Your task to perform on an android device: show emergency info Image 0: 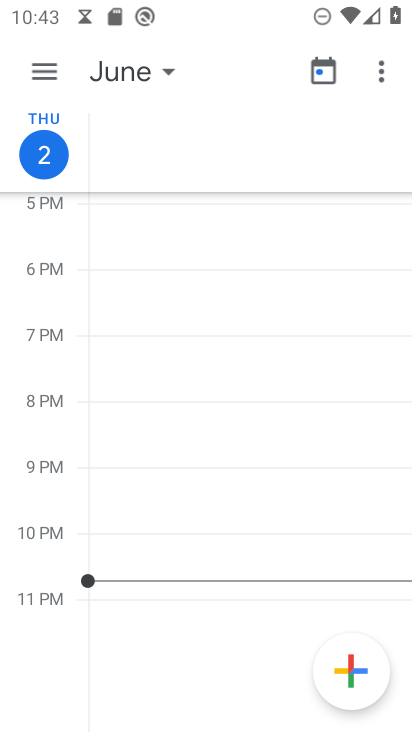
Step 0: press back button
Your task to perform on an android device: show emergency info Image 1: 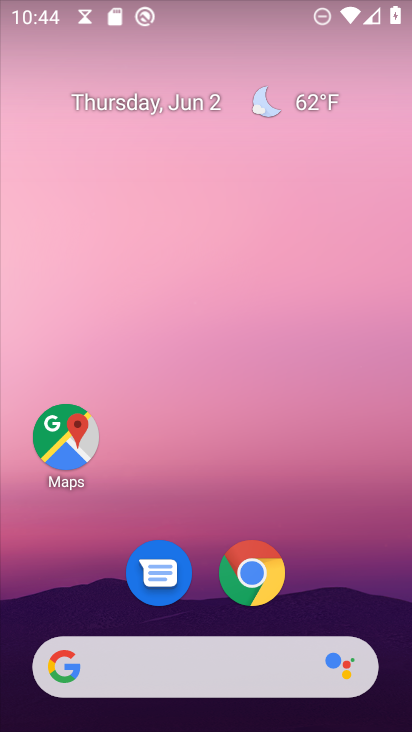
Step 1: drag from (338, 590) to (208, 161)
Your task to perform on an android device: show emergency info Image 2: 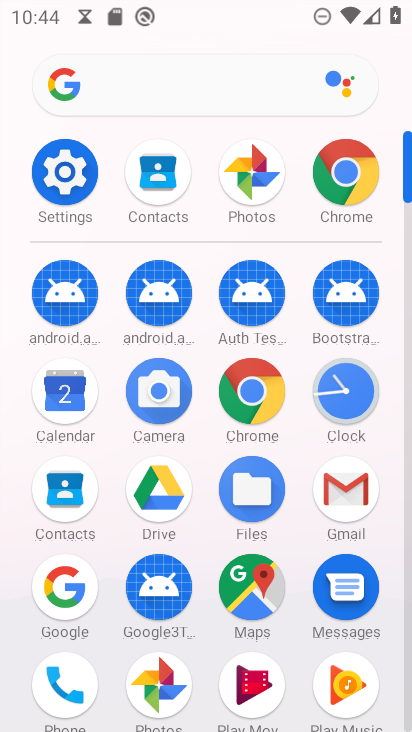
Step 2: click (65, 177)
Your task to perform on an android device: show emergency info Image 3: 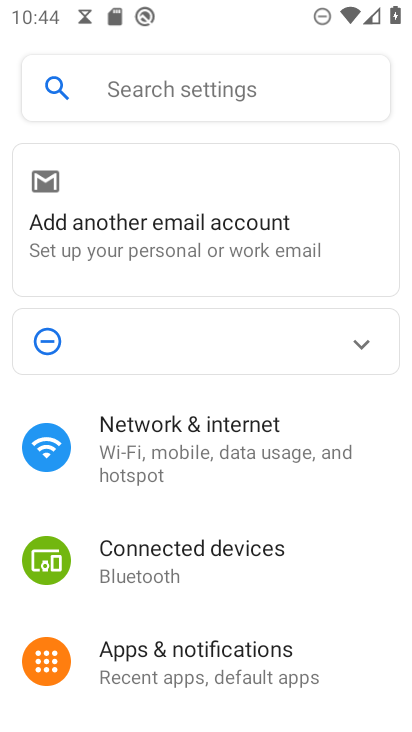
Step 3: drag from (216, 523) to (206, 393)
Your task to perform on an android device: show emergency info Image 4: 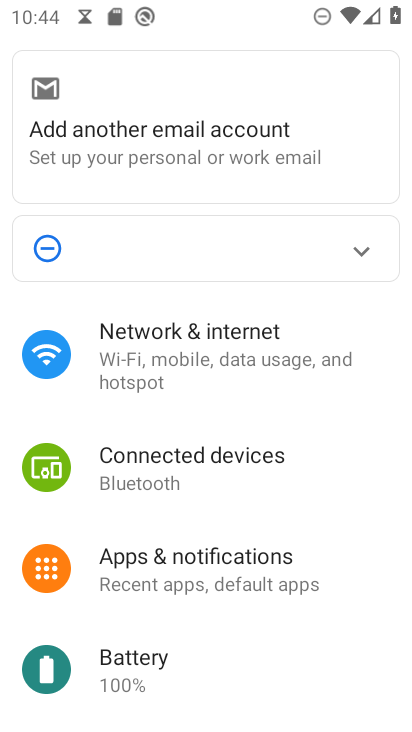
Step 4: drag from (177, 513) to (207, 405)
Your task to perform on an android device: show emergency info Image 5: 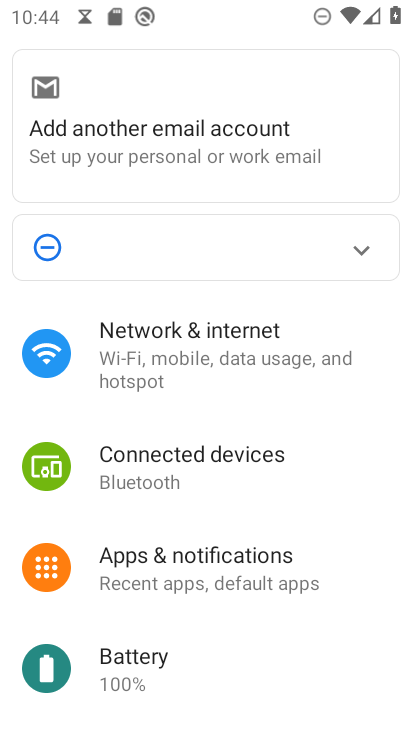
Step 5: drag from (170, 529) to (174, 373)
Your task to perform on an android device: show emergency info Image 6: 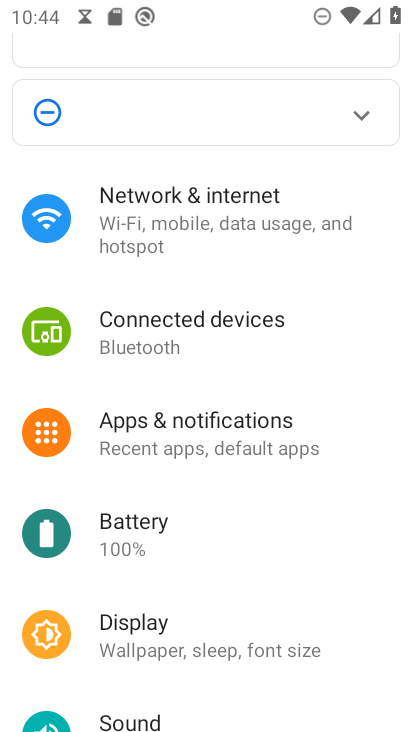
Step 6: drag from (204, 507) to (233, 415)
Your task to perform on an android device: show emergency info Image 7: 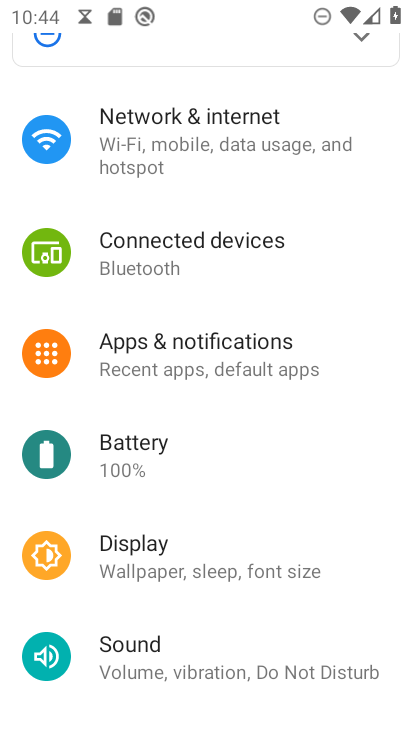
Step 7: drag from (205, 535) to (244, 441)
Your task to perform on an android device: show emergency info Image 8: 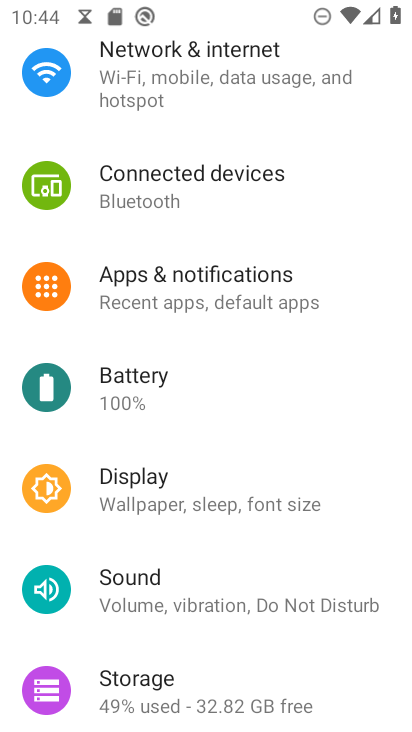
Step 8: drag from (192, 548) to (245, 460)
Your task to perform on an android device: show emergency info Image 9: 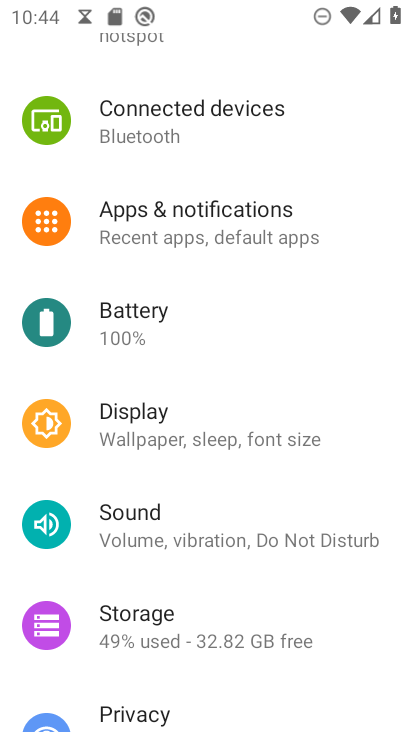
Step 9: drag from (207, 580) to (244, 503)
Your task to perform on an android device: show emergency info Image 10: 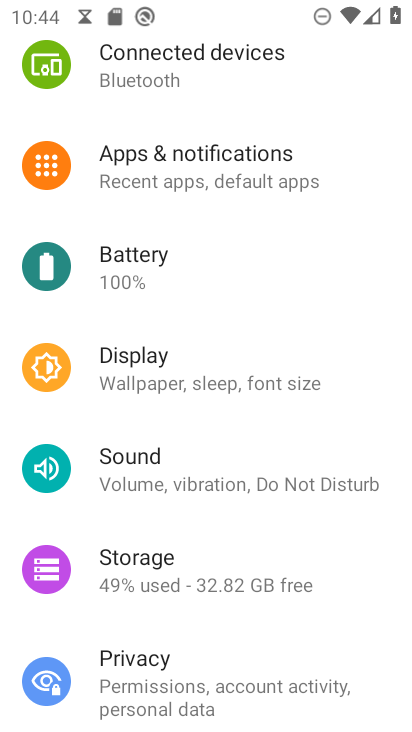
Step 10: drag from (203, 620) to (251, 520)
Your task to perform on an android device: show emergency info Image 11: 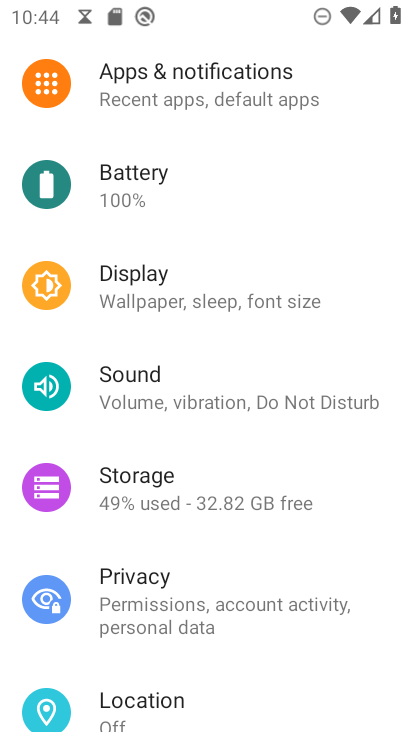
Step 11: drag from (214, 568) to (283, 453)
Your task to perform on an android device: show emergency info Image 12: 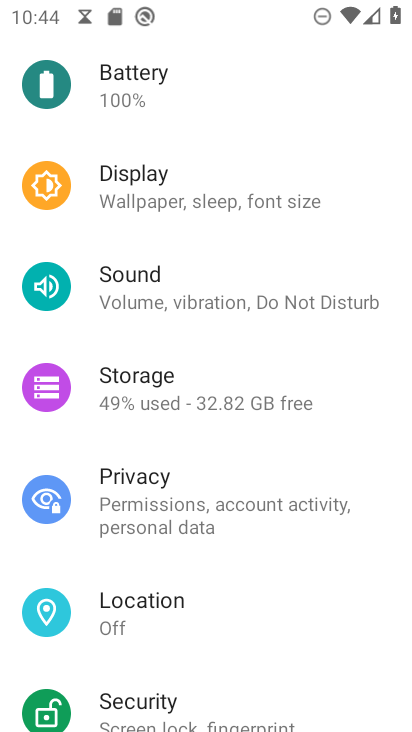
Step 12: drag from (229, 567) to (288, 466)
Your task to perform on an android device: show emergency info Image 13: 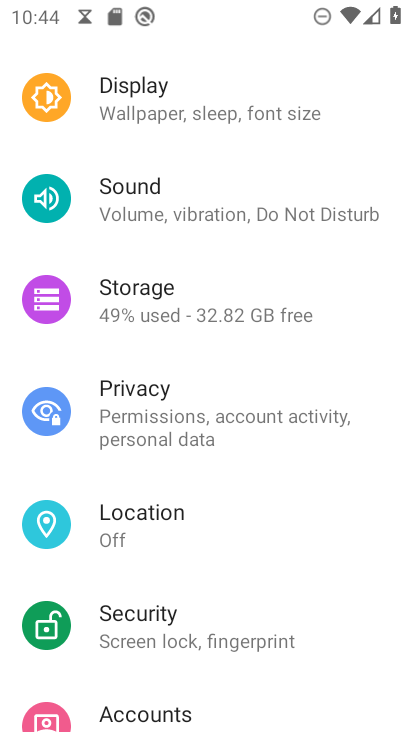
Step 13: drag from (218, 578) to (280, 459)
Your task to perform on an android device: show emergency info Image 14: 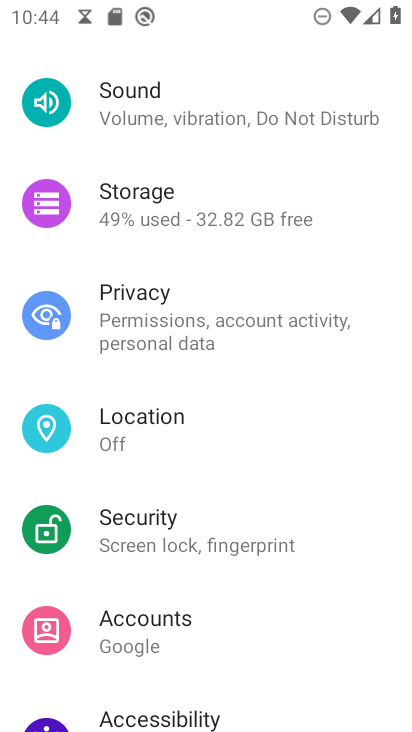
Step 14: drag from (229, 497) to (282, 376)
Your task to perform on an android device: show emergency info Image 15: 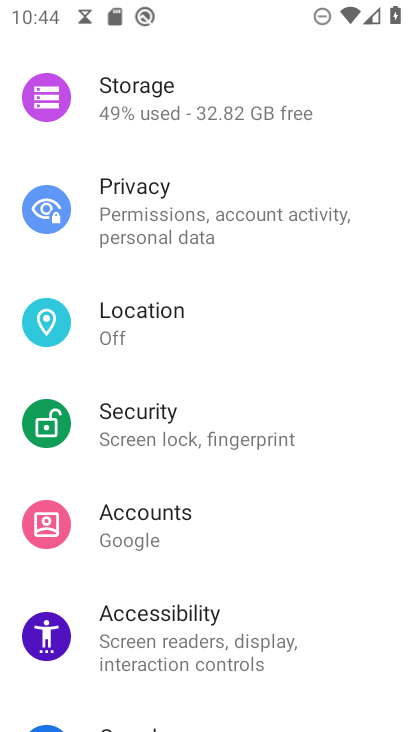
Step 15: drag from (228, 502) to (265, 402)
Your task to perform on an android device: show emergency info Image 16: 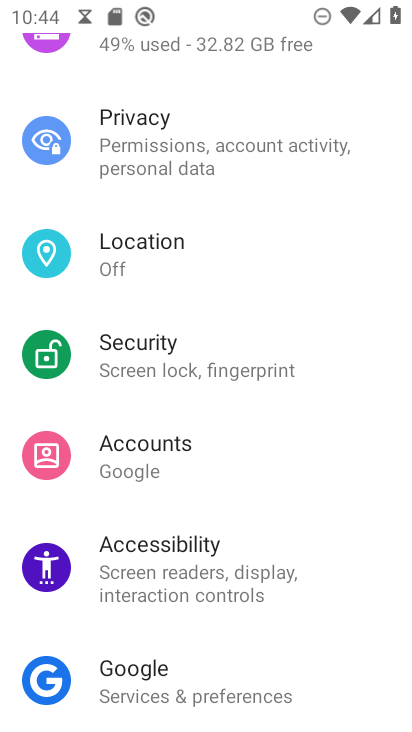
Step 16: drag from (221, 491) to (284, 386)
Your task to perform on an android device: show emergency info Image 17: 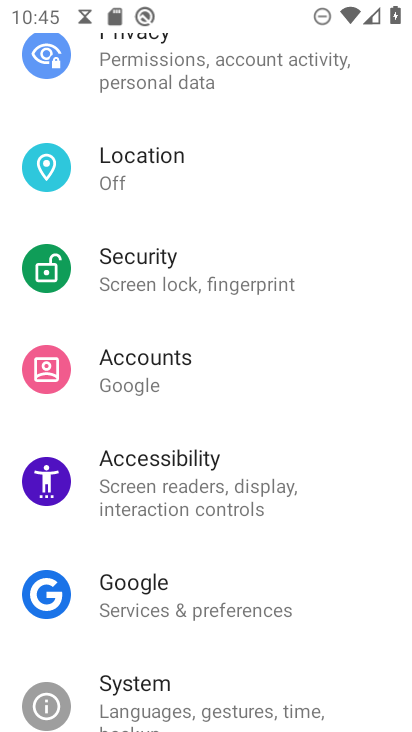
Step 17: drag from (219, 424) to (277, 346)
Your task to perform on an android device: show emergency info Image 18: 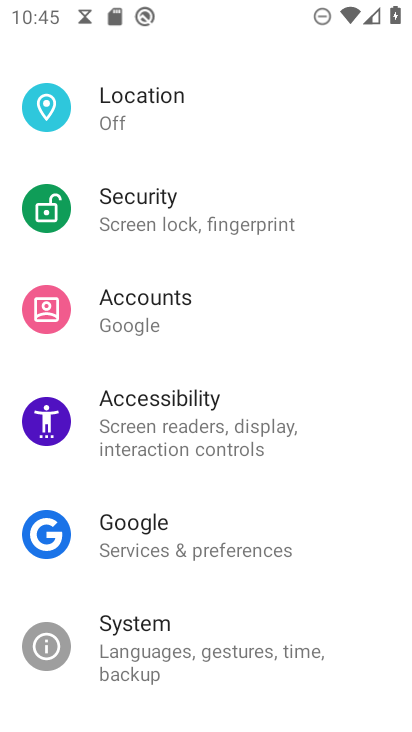
Step 18: drag from (201, 507) to (283, 400)
Your task to perform on an android device: show emergency info Image 19: 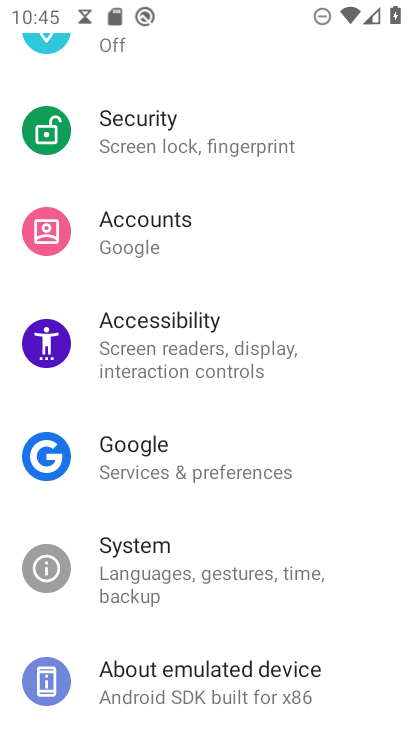
Step 19: click (216, 670)
Your task to perform on an android device: show emergency info Image 20: 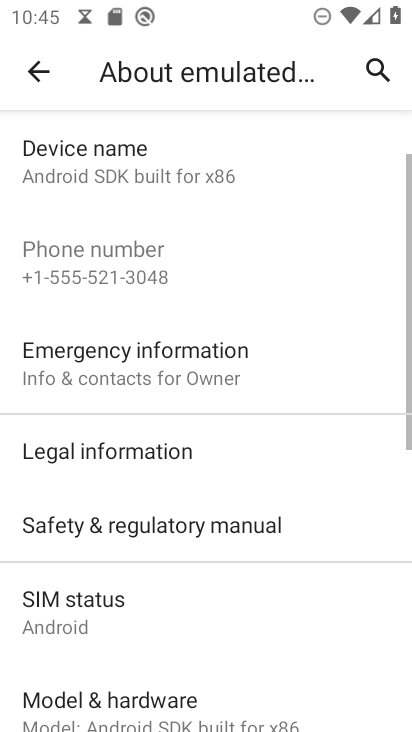
Step 20: click (155, 354)
Your task to perform on an android device: show emergency info Image 21: 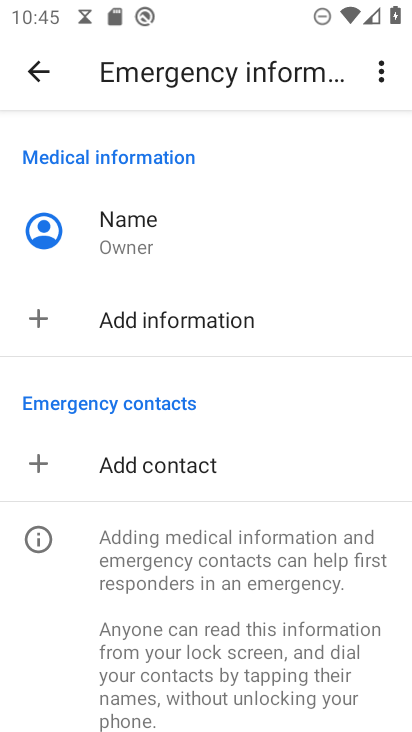
Step 21: task complete